Your task to perform on an android device: make emails show in primary in the gmail app Image 0: 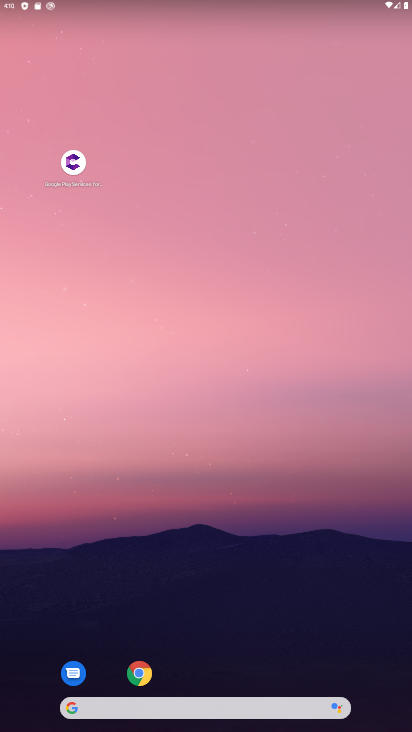
Step 0: click (205, 247)
Your task to perform on an android device: make emails show in primary in the gmail app Image 1: 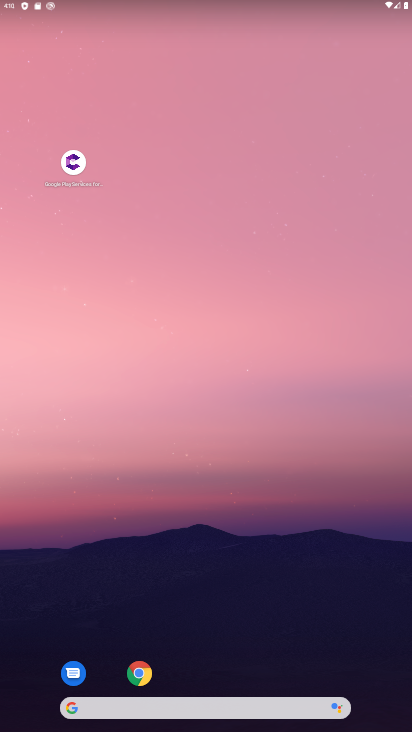
Step 1: drag from (266, 405) to (181, 136)
Your task to perform on an android device: make emails show in primary in the gmail app Image 2: 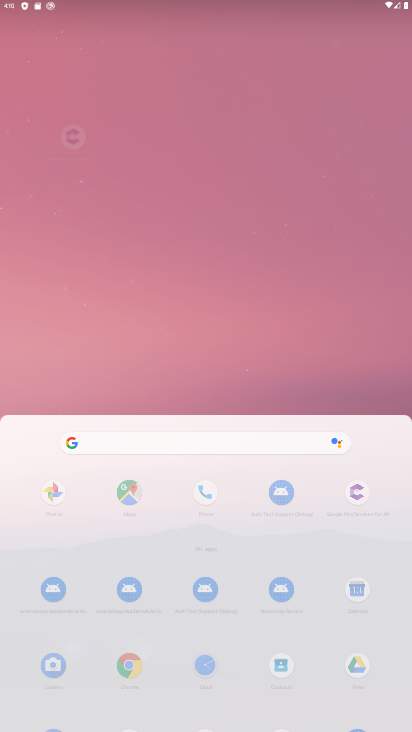
Step 2: drag from (279, 578) to (190, 296)
Your task to perform on an android device: make emails show in primary in the gmail app Image 3: 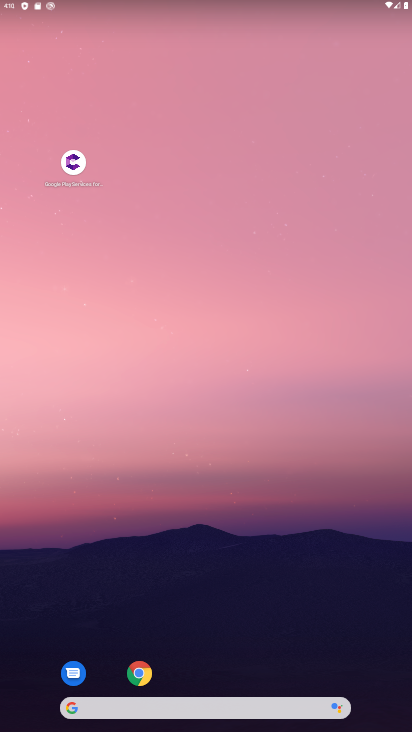
Step 3: drag from (238, 574) to (74, 138)
Your task to perform on an android device: make emails show in primary in the gmail app Image 4: 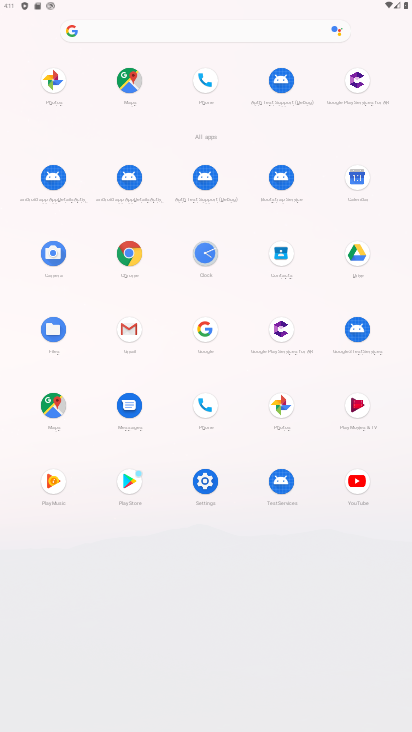
Step 4: click (195, 484)
Your task to perform on an android device: make emails show in primary in the gmail app Image 5: 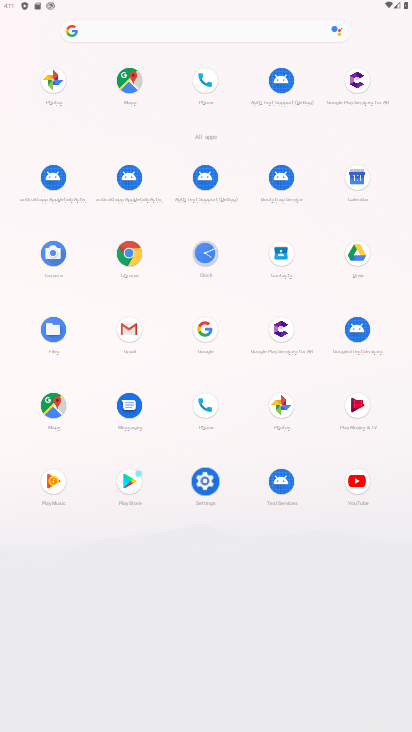
Step 5: click (198, 482)
Your task to perform on an android device: make emails show in primary in the gmail app Image 6: 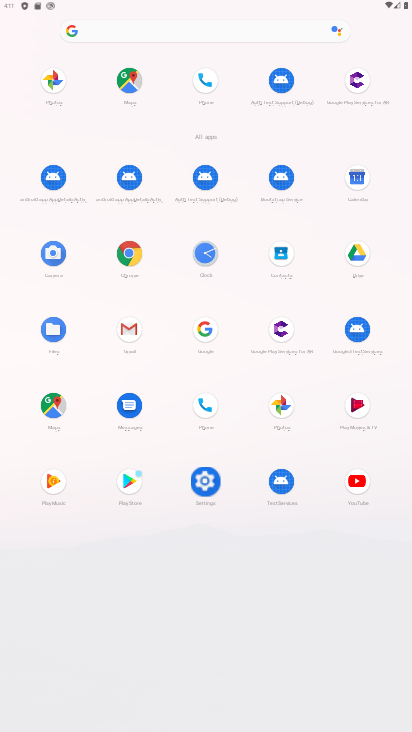
Step 6: click (198, 482)
Your task to perform on an android device: make emails show in primary in the gmail app Image 7: 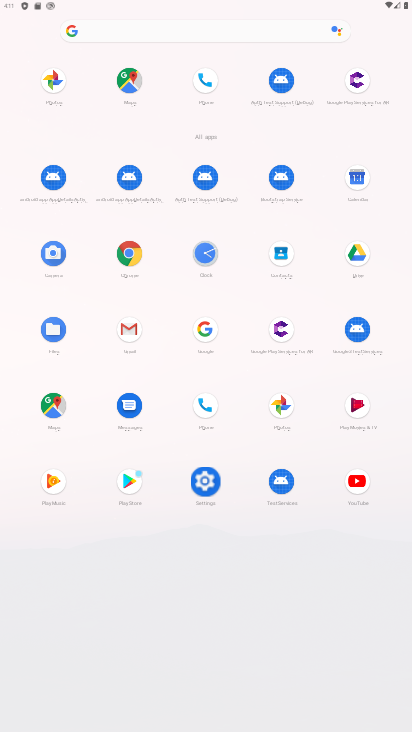
Step 7: click (198, 481)
Your task to perform on an android device: make emails show in primary in the gmail app Image 8: 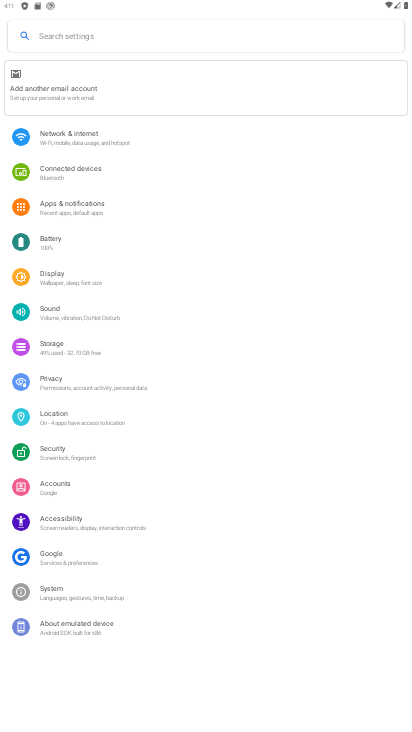
Step 8: click (56, 274)
Your task to perform on an android device: make emails show in primary in the gmail app Image 9: 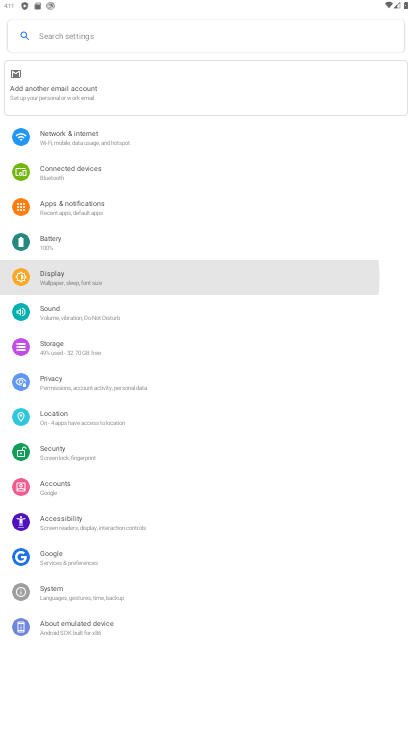
Step 9: click (59, 274)
Your task to perform on an android device: make emails show in primary in the gmail app Image 10: 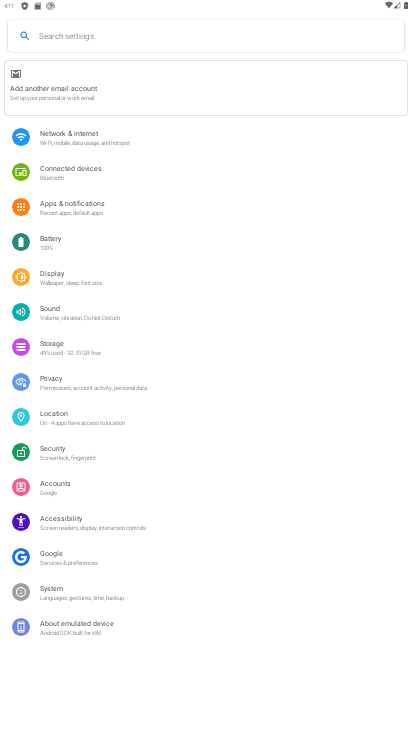
Step 10: click (62, 274)
Your task to perform on an android device: make emails show in primary in the gmail app Image 11: 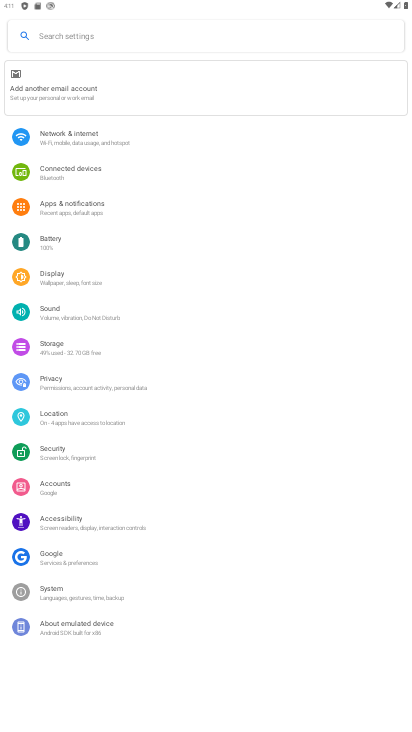
Step 11: click (62, 274)
Your task to perform on an android device: make emails show in primary in the gmail app Image 12: 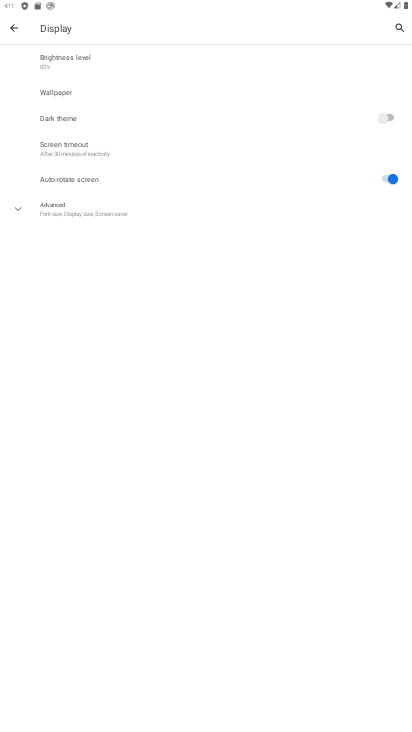
Step 12: click (54, 209)
Your task to perform on an android device: make emails show in primary in the gmail app Image 13: 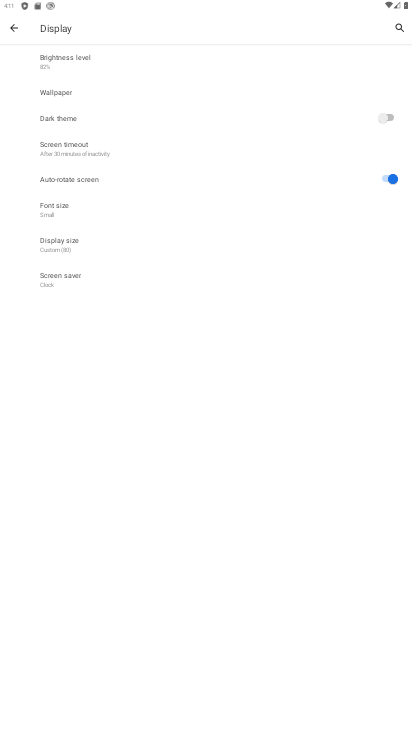
Step 13: click (50, 249)
Your task to perform on an android device: make emails show in primary in the gmail app Image 14: 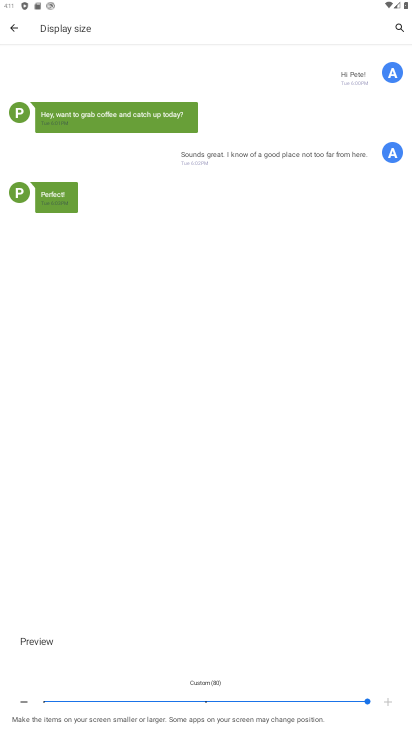
Step 14: click (9, 17)
Your task to perform on an android device: make emails show in primary in the gmail app Image 15: 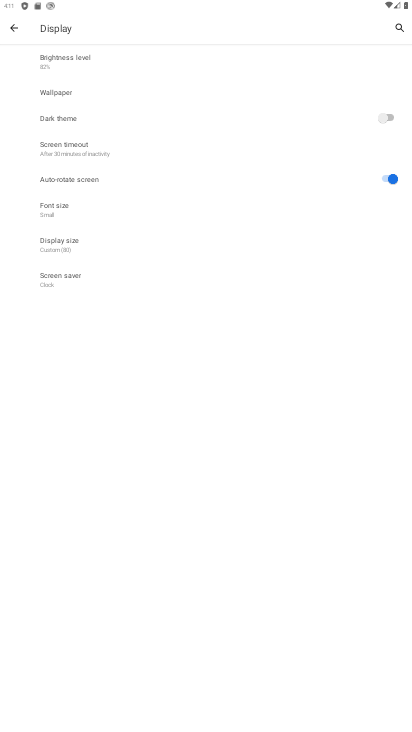
Step 15: click (57, 266)
Your task to perform on an android device: make emails show in primary in the gmail app Image 16: 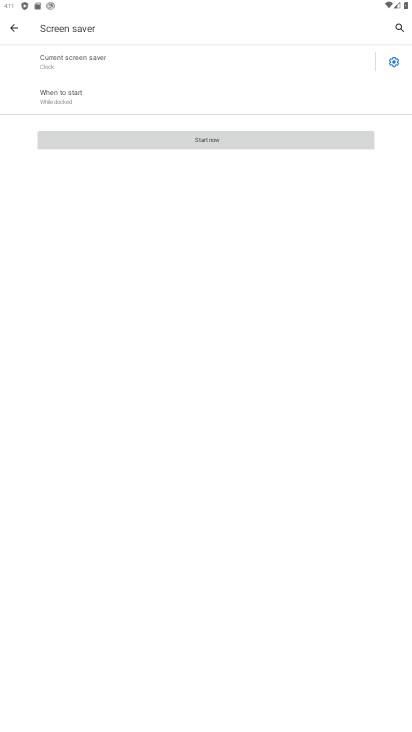
Step 16: click (13, 25)
Your task to perform on an android device: make emails show in primary in the gmail app Image 17: 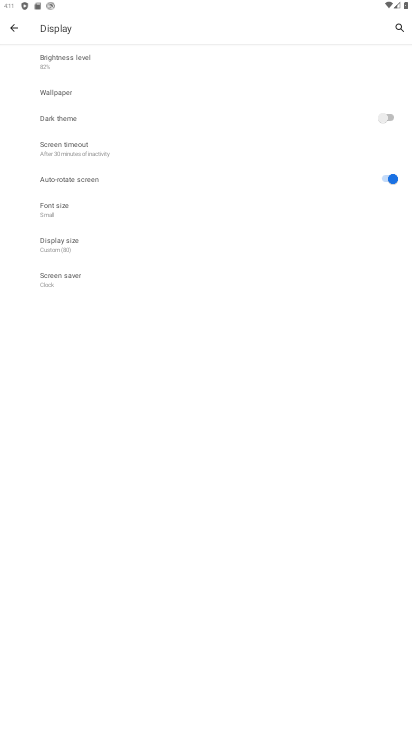
Step 17: click (53, 204)
Your task to perform on an android device: make emails show in primary in the gmail app Image 18: 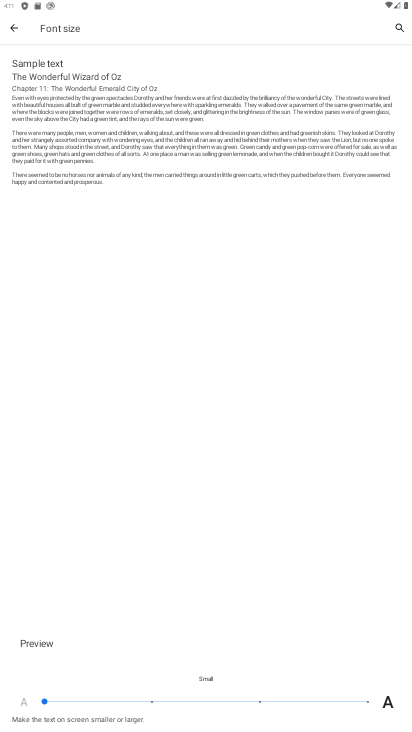
Step 18: click (369, 700)
Your task to perform on an android device: make emails show in primary in the gmail app Image 19: 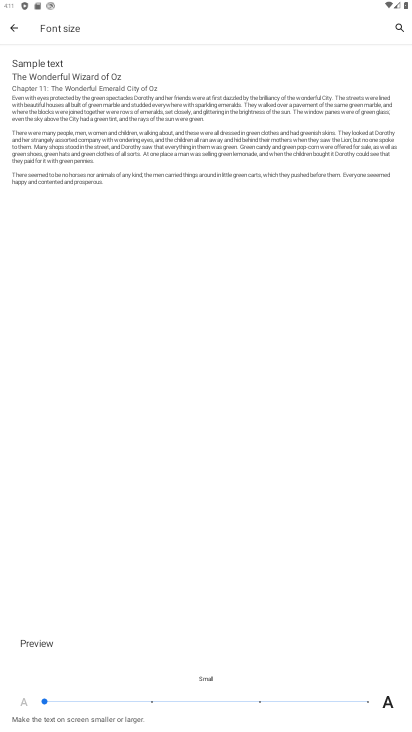
Step 19: click (369, 700)
Your task to perform on an android device: make emails show in primary in the gmail app Image 20: 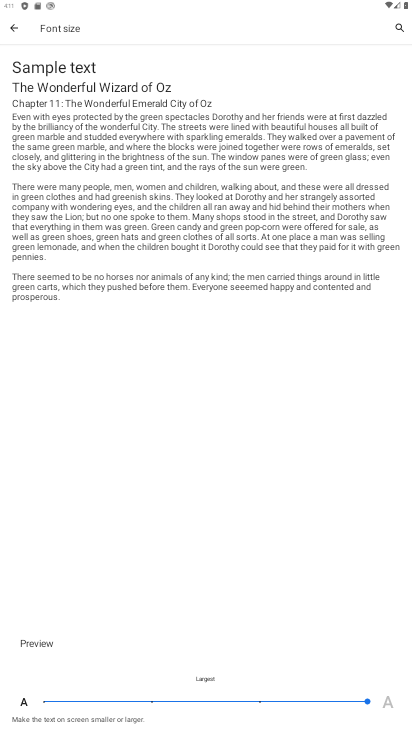
Step 20: click (369, 700)
Your task to perform on an android device: make emails show in primary in the gmail app Image 21: 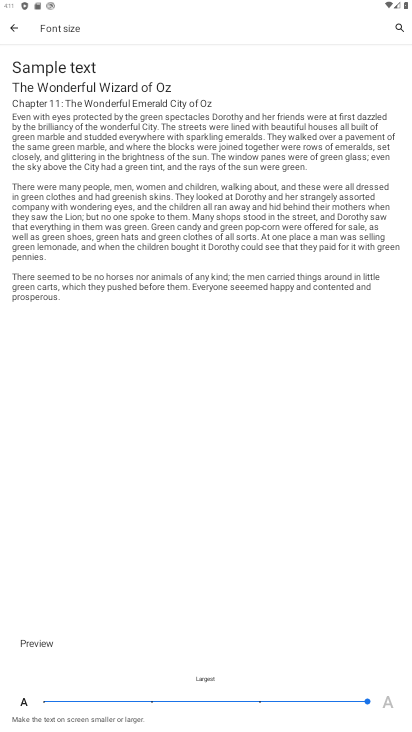
Step 21: click (369, 700)
Your task to perform on an android device: make emails show in primary in the gmail app Image 22: 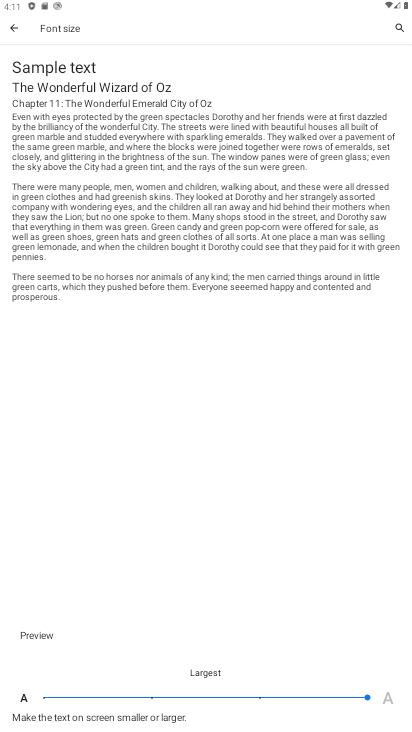
Step 22: press back button
Your task to perform on an android device: make emails show in primary in the gmail app Image 23: 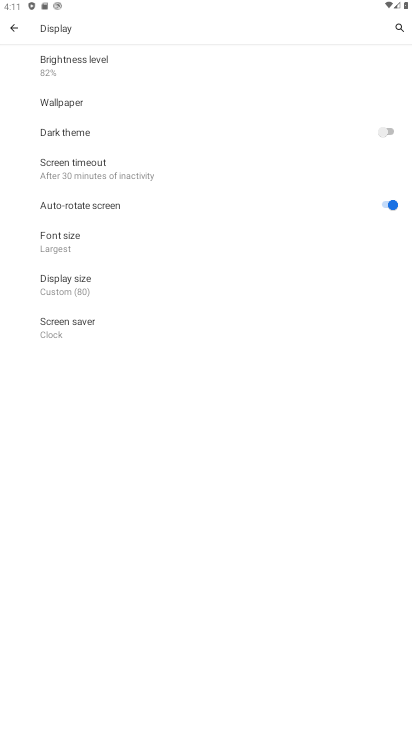
Step 23: click (17, 27)
Your task to perform on an android device: make emails show in primary in the gmail app Image 24: 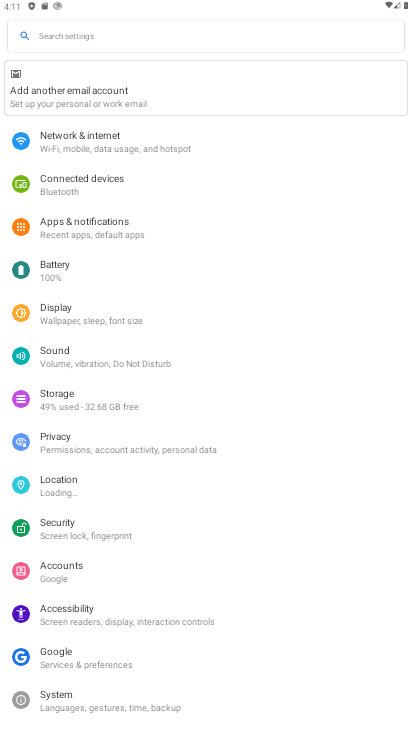
Step 24: press back button
Your task to perform on an android device: make emails show in primary in the gmail app Image 25: 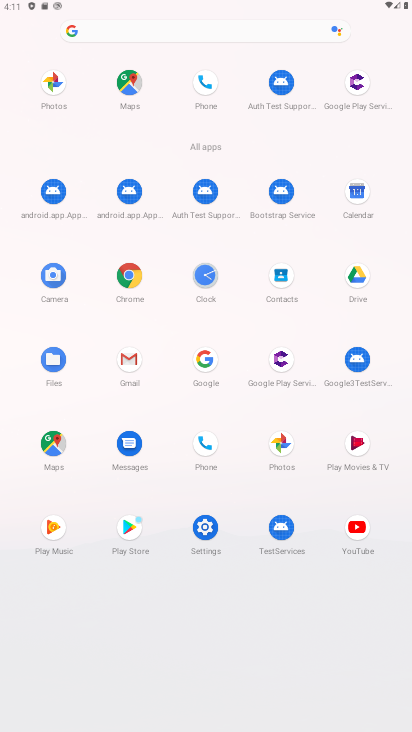
Step 25: click (119, 355)
Your task to perform on an android device: make emails show in primary in the gmail app Image 26: 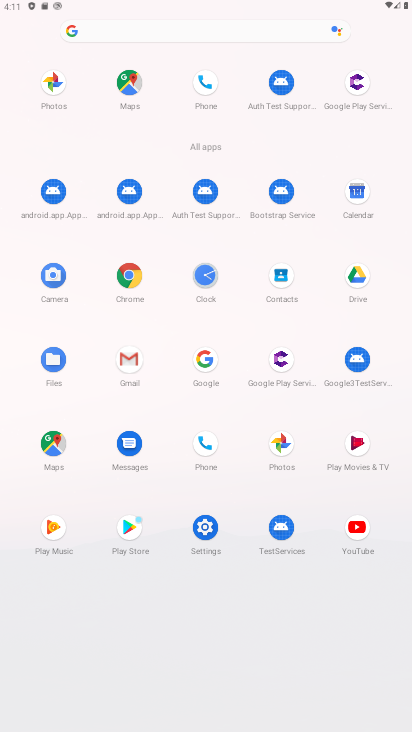
Step 26: click (119, 355)
Your task to perform on an android device: make emails show in primary in the gmail app Image 27: 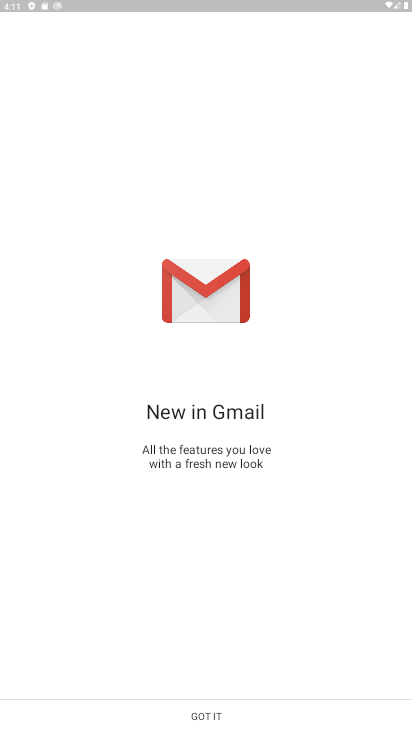
Step 27: click (214, 727)
Your task to perform on an android device: make emails show in primary in the gmail app Image 28: 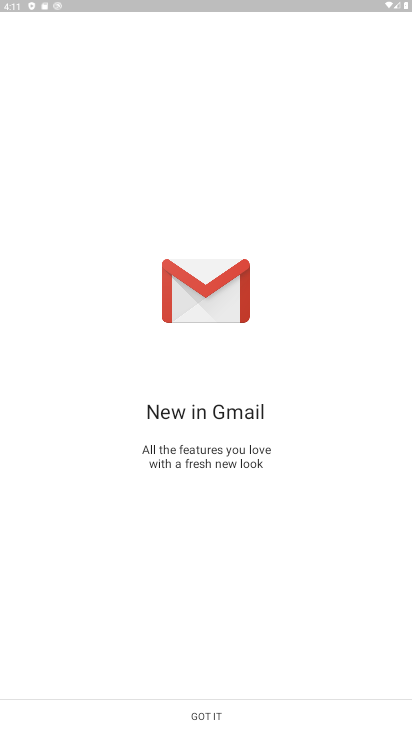
Step 28: click (216, 726)
Your task to perform on an android device: make emails show in primary in the gmail app Image 29: 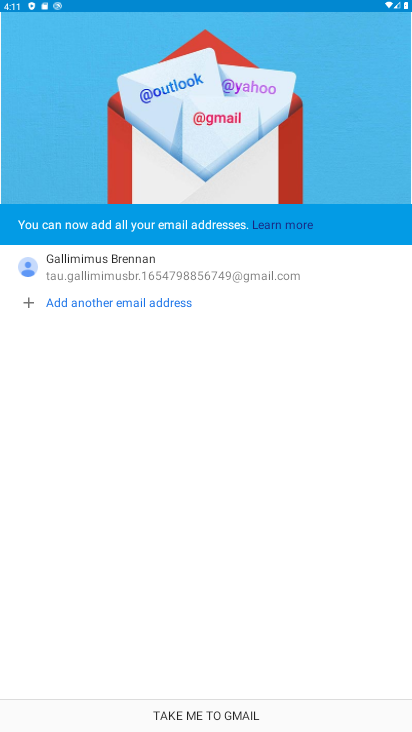
Step 29: click (231, 714)
Your task to perform on an android device: make emails show in primary in the gmail app Image 30: 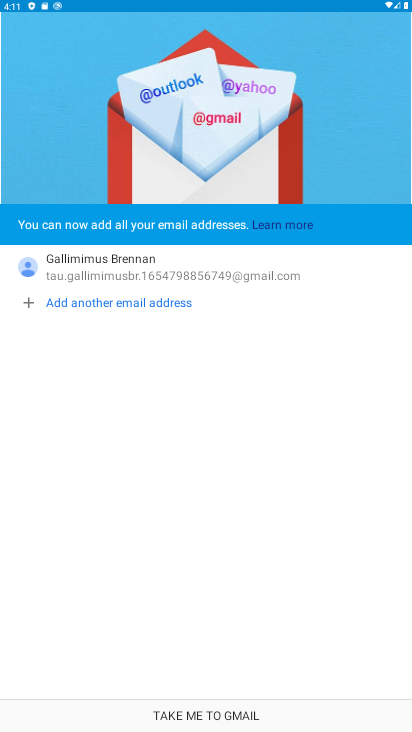
Step 30: click (239, 708)
Your task to perform on an android device: make emails show in primary in the gmail app Image 31: 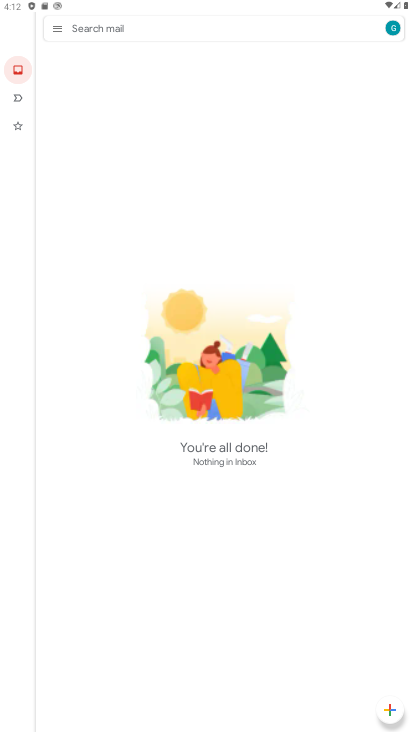
Step 31: click (62, 24)
Your task to perform on an android device: make emails show in primary in the gmail app Image 32: 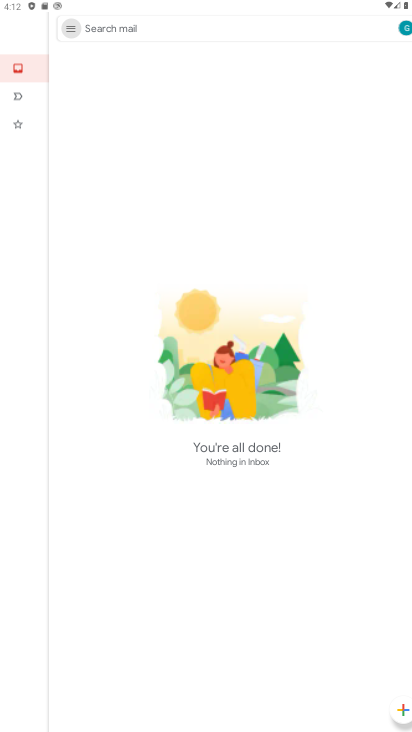
Step 32: click (62, 24)
Your task to perform on an android device: make emails show in primary in the gmail app Image 33: 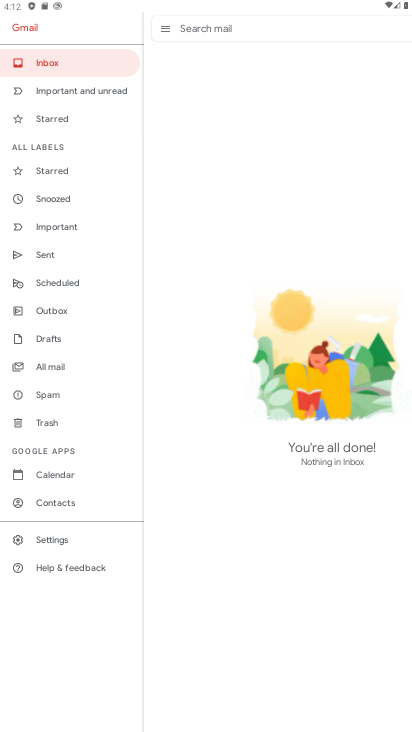
Step 33: click (54, 538)
Your task to perform on an android device: make emails show in primary in the gmail app Image 34: 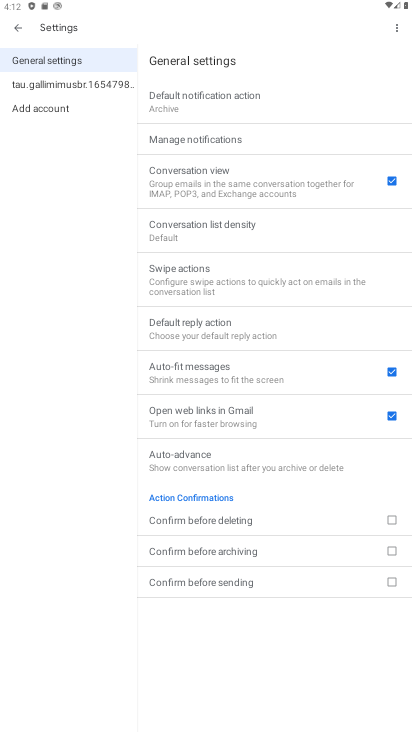
Step 34: click (31, 77)
Your task to perform on an android device: make emails show in primary in the gmail app Image 35: 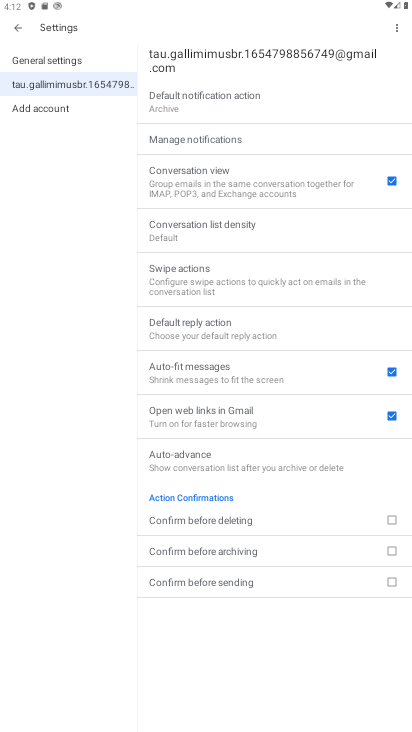
Step 35: click (31, 77)
Your task to perform on an android device: make emails show in primary in the gmail app Image 36: 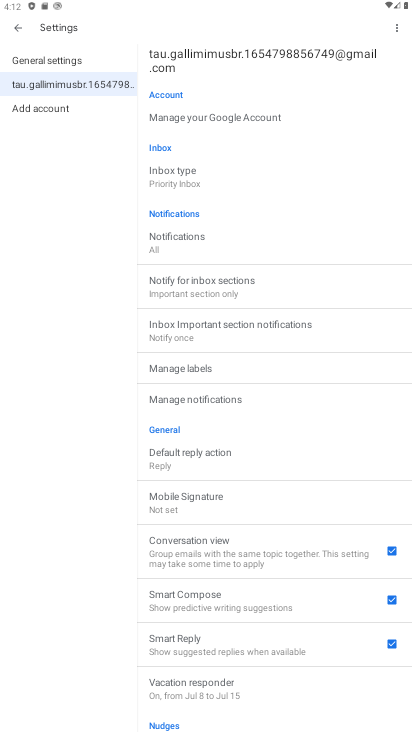
Step 36: click (165, 180)
Your task to perform on an android device: make emails show in primary in the gmail app Image 37: 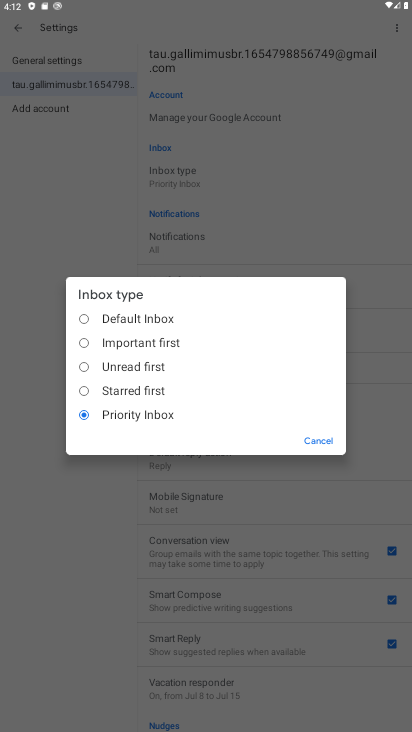
Step 37: click (86, 316)
Your task to perform on an android device: make emails show in primary in the gmail app Image 38: 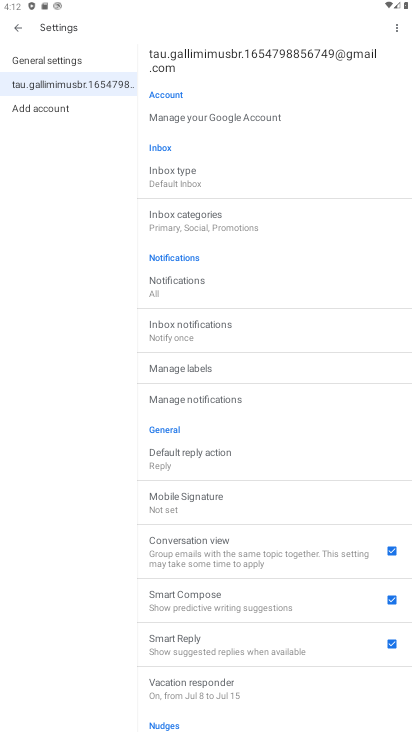
Step 38: task complete